Your task to perform on an android device: check data usage Image 0: 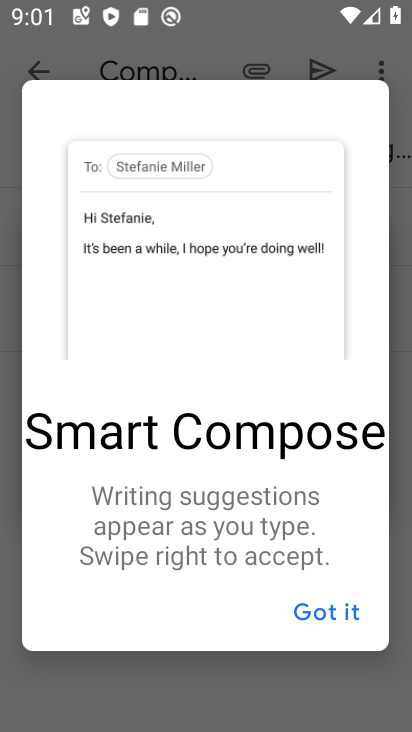
Step 0: press home button
Your task to perform on an android device: check data usage Image 1: 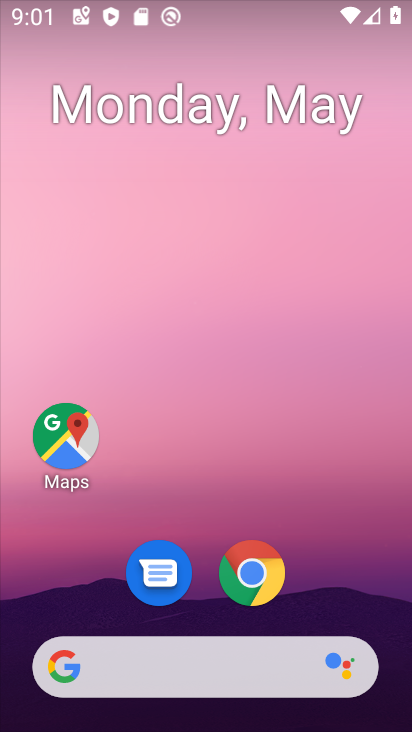
Step 1: drag from (350, 561) to (252, 113)
Your task to perform on an android device: check data usage Image 2: 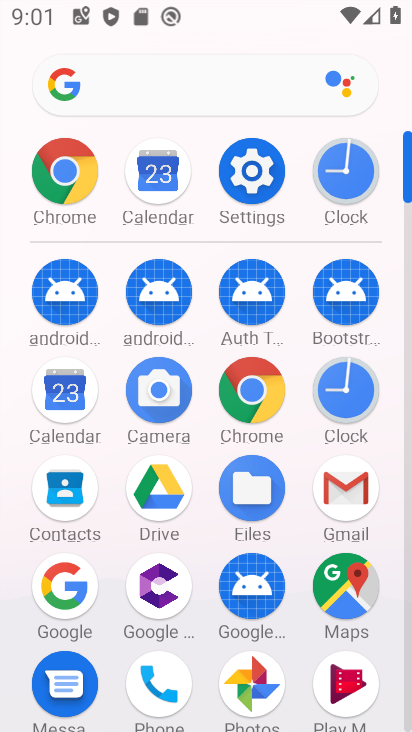
Step 2: click (252, 212)
Your task to perform on an android device: check data usage Image 3: 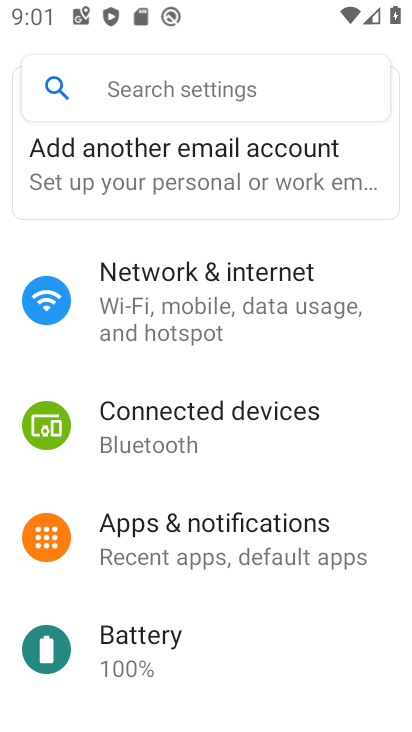
Step 3: click (219, 303)
Your task to perform on an android device: check data usage Image 4: 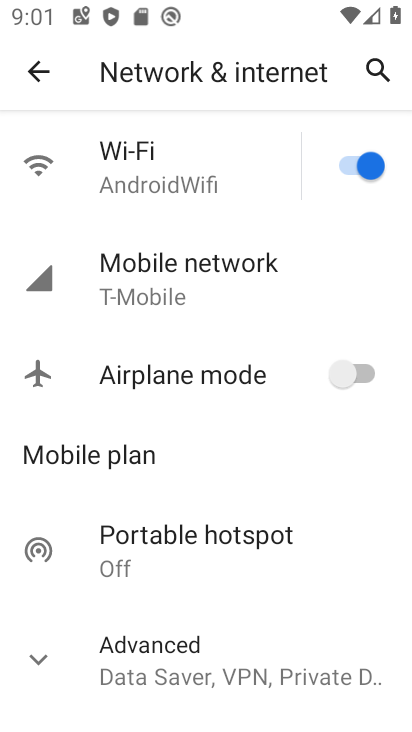
Step 4: task complete